Your task to perform on an android device: check out phone information Image 0: 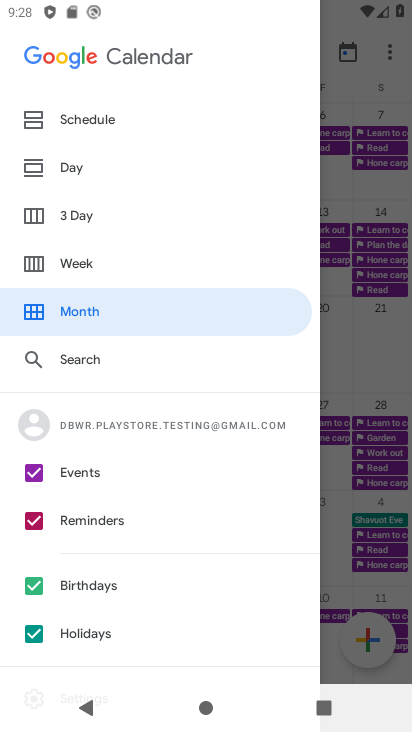
Step 0: press home button
Your task to perform on an android device: check out phone information Image 1: 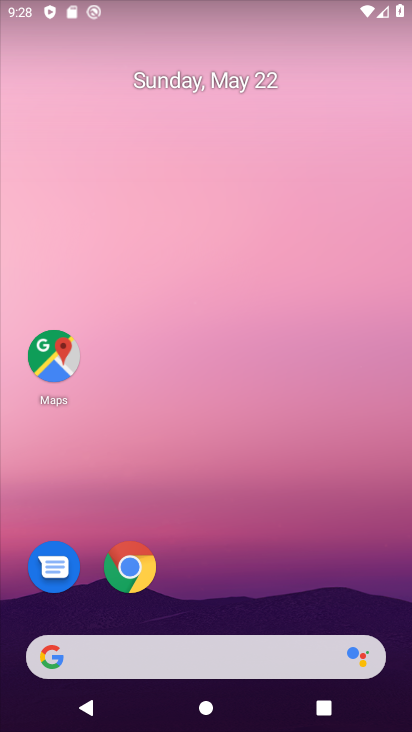
Step 1: drag from (230, 575) to (239, 170)
Your task to perform on an android device: check out phone information Image 2: 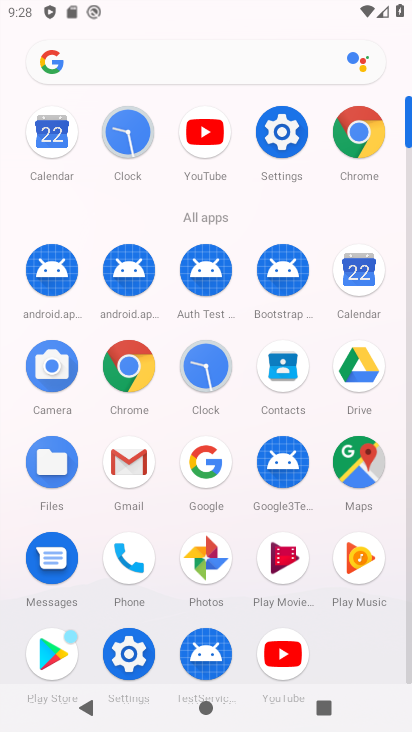
Step 2: click (286, 121)
Your task to perform on an android device: check out phone information Image 3: 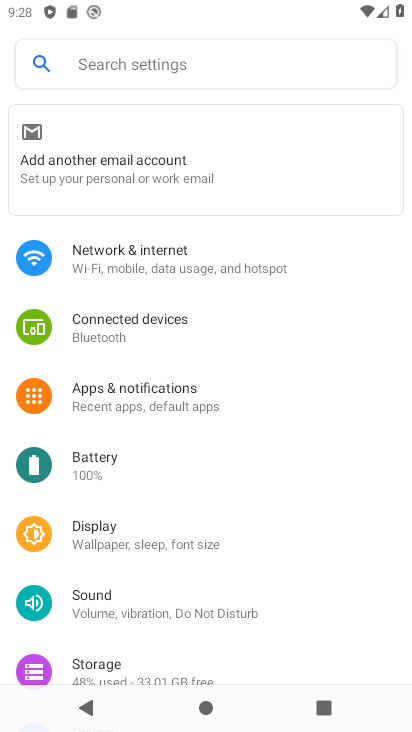
Step 3: drag from (236, 627) to (223, 190)
Your task to perform on an android device: check out phone information Image 4: 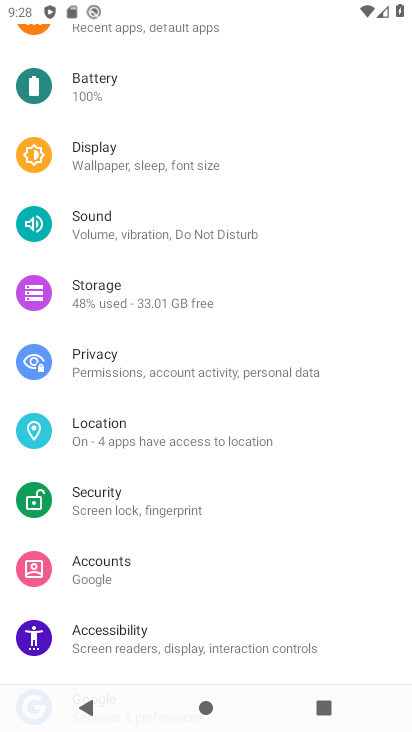
Step 4: drag from (213, 637) to (269, 131)
Your task to perform on an android device: check out phone information Image 5: 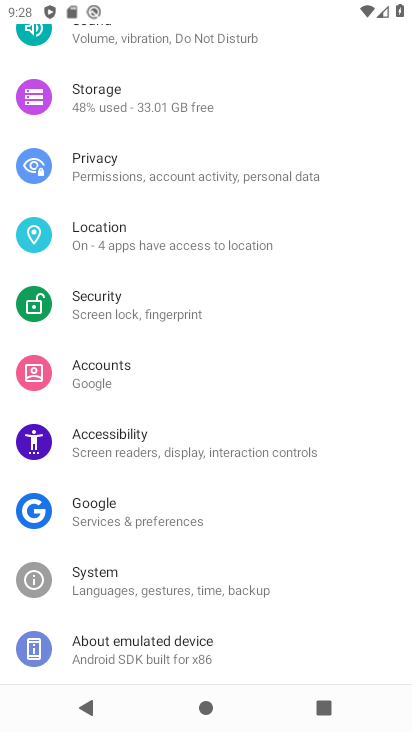
Step 5: click (172, 642)
Your task to perform on an android device: check out phone information Image 6: 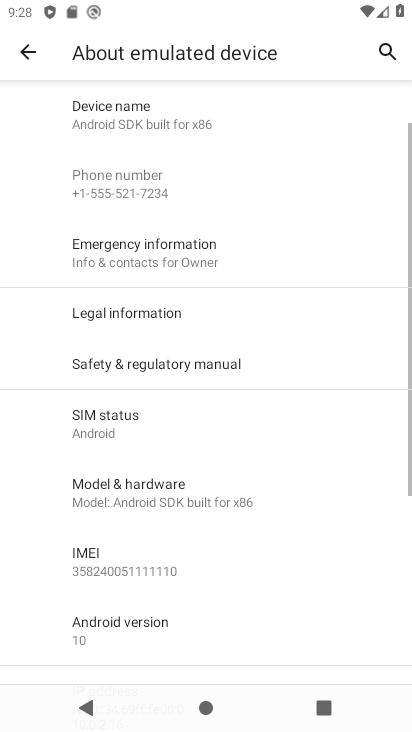
Step 6: task complete